Your task to perform on an android device: change your default location settings in chrome Image 0: 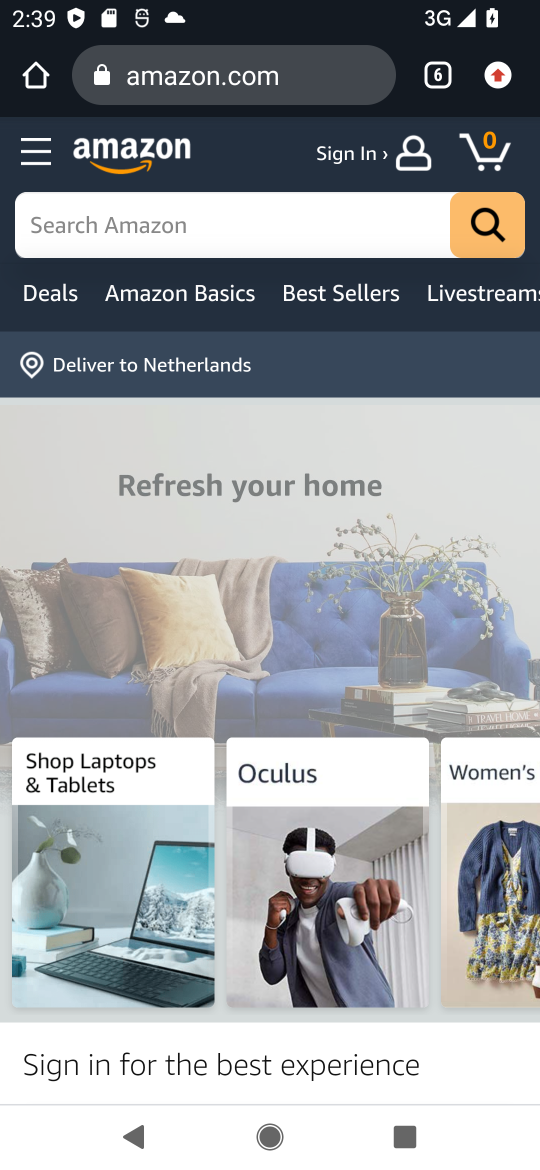
Step 0: click (503, 80)
Your task to perform on an android device: change your default location settings in chrome Image 1: 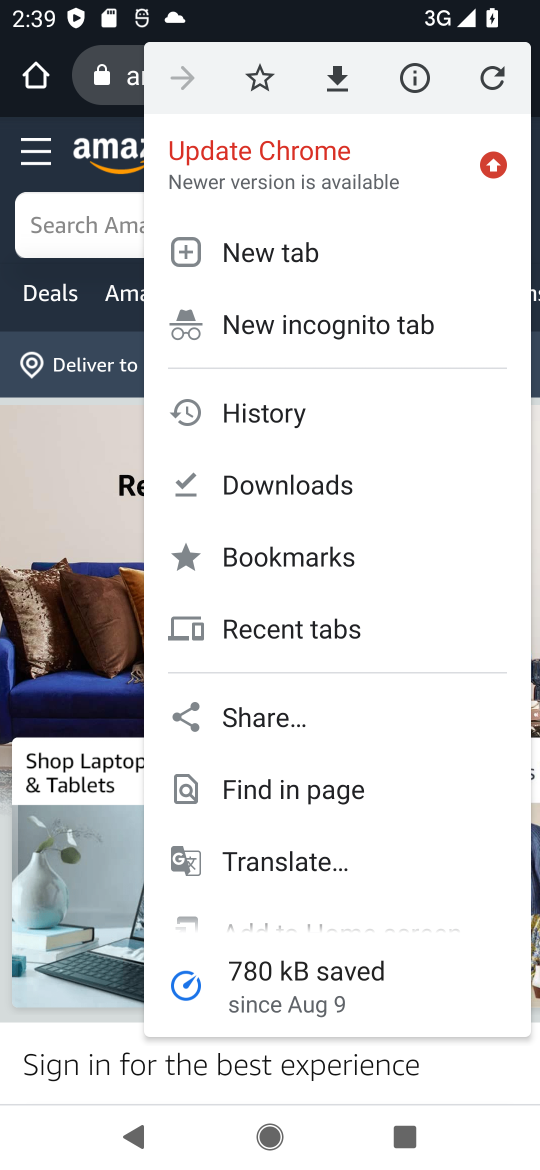
Step 1: drag from (367, 854) to (365, 351)
Your task to perform on an android device: change your default location settings in chrome Image 2: 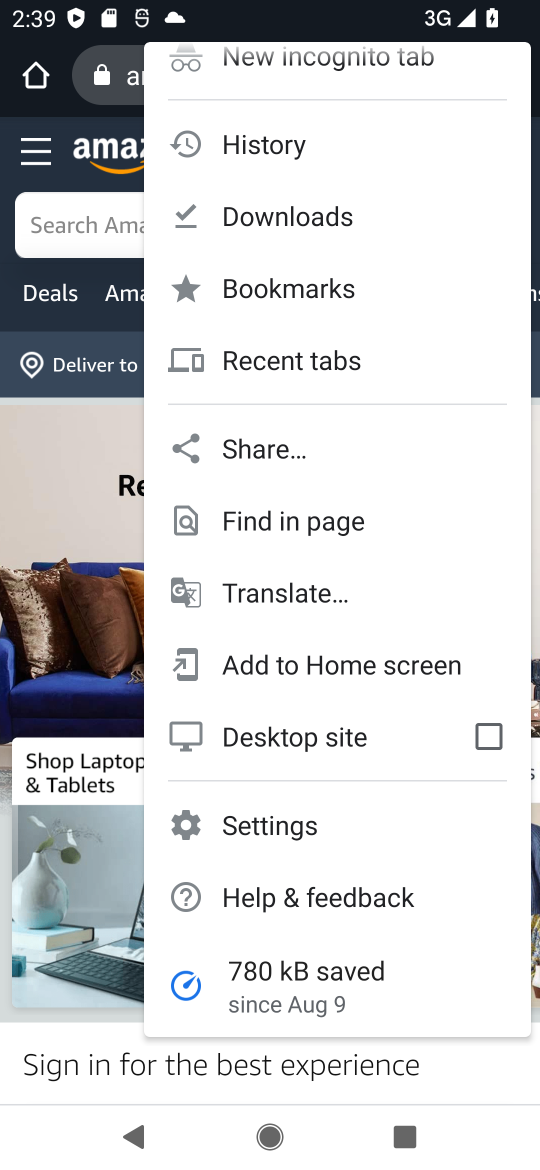
Step 2: click (270, 826)
Your task to perform on an android device: change your default location settings in chrome Image 3: 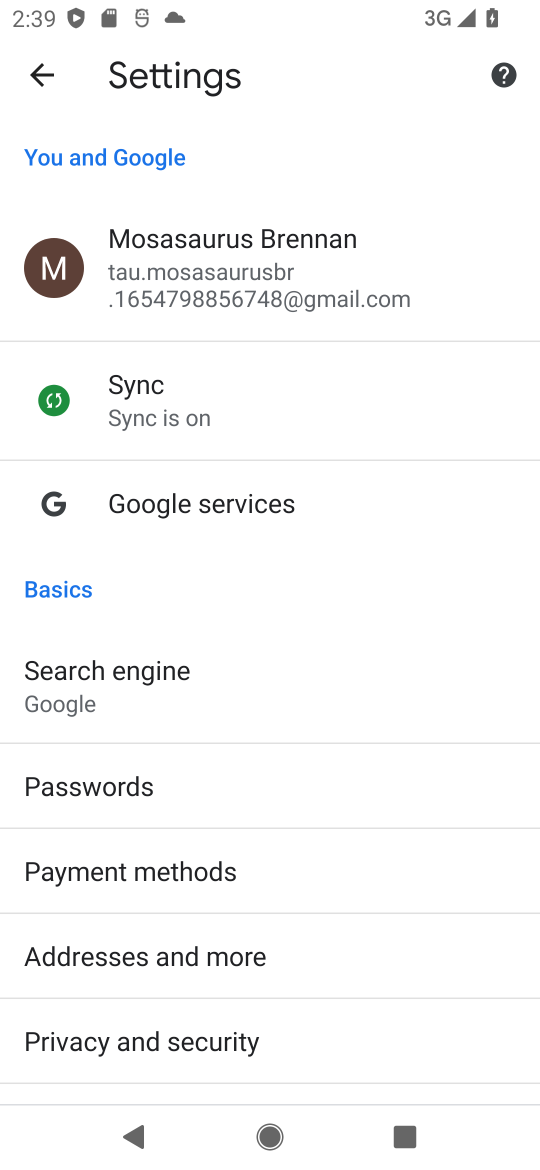
Step 3: drag from (331, 906) to (313, 170)
Your task to perform on an android device: change your default location settings in chrome Image 4: 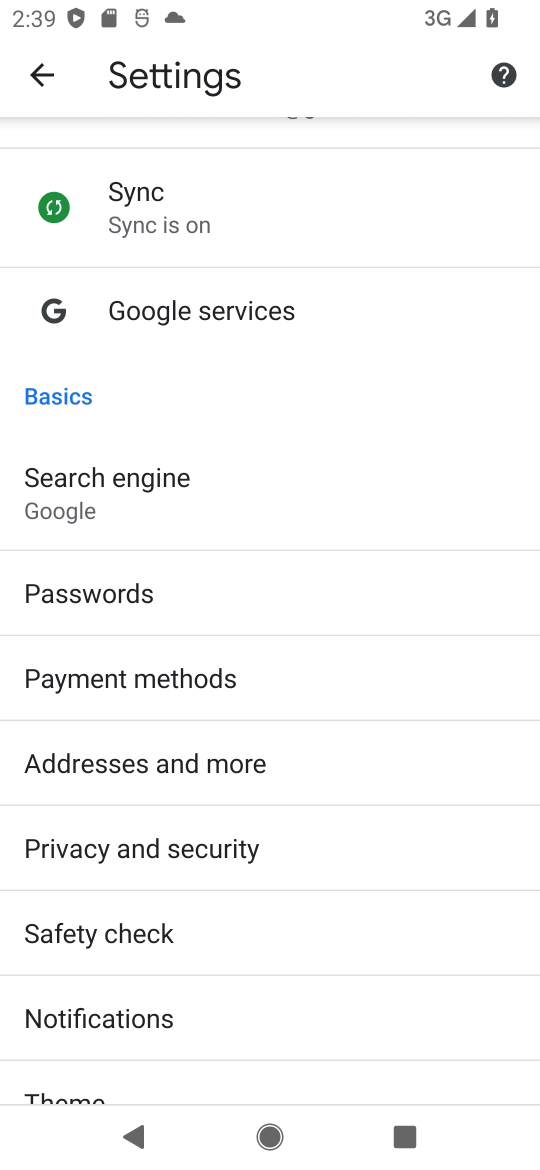
Step 4: drag from (308, 1004) to (275, 335)
Your task to perform on an android device: change your default location settings in chrome Image 5: 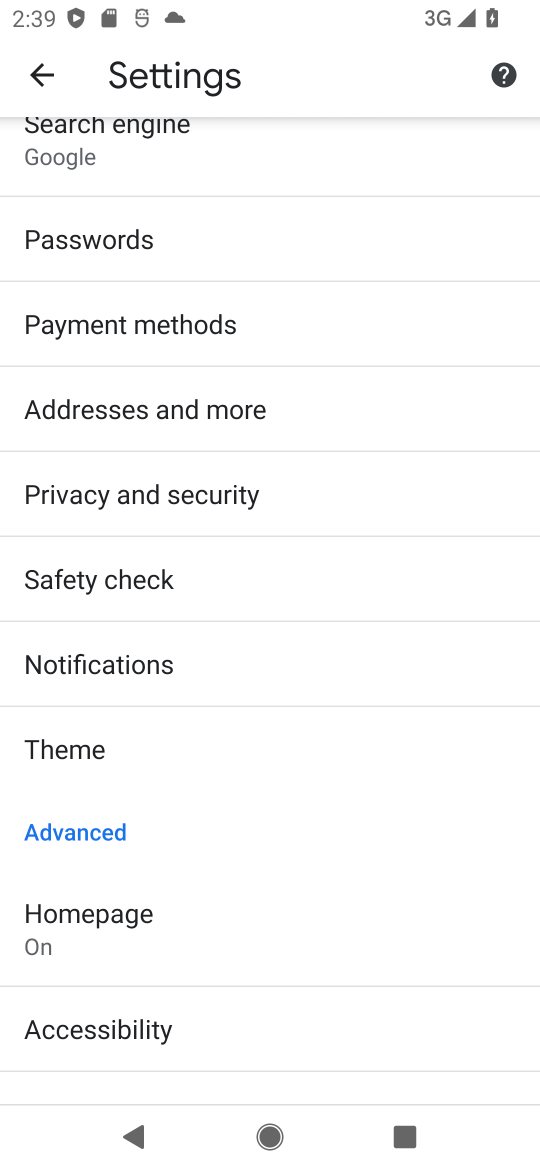
Step 5: drag from (271, 910) to (213, 298)
Your task to perform on an android device: change your default location settings in chrome Image 6: 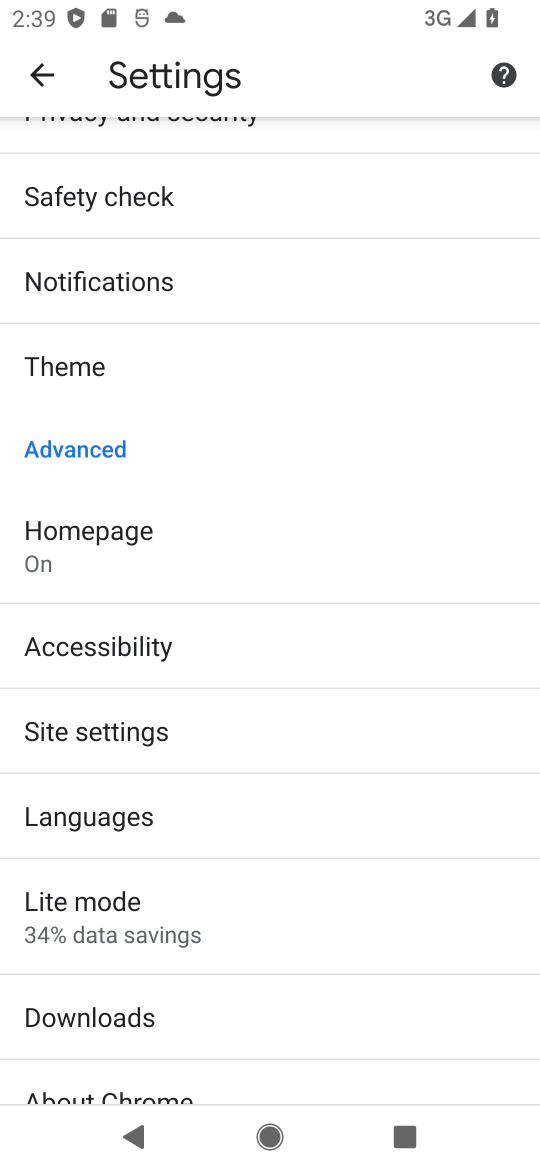
Step 6: click (82, 722)
Your task to perform on an android device: change your default location settings in chrome Image 7: 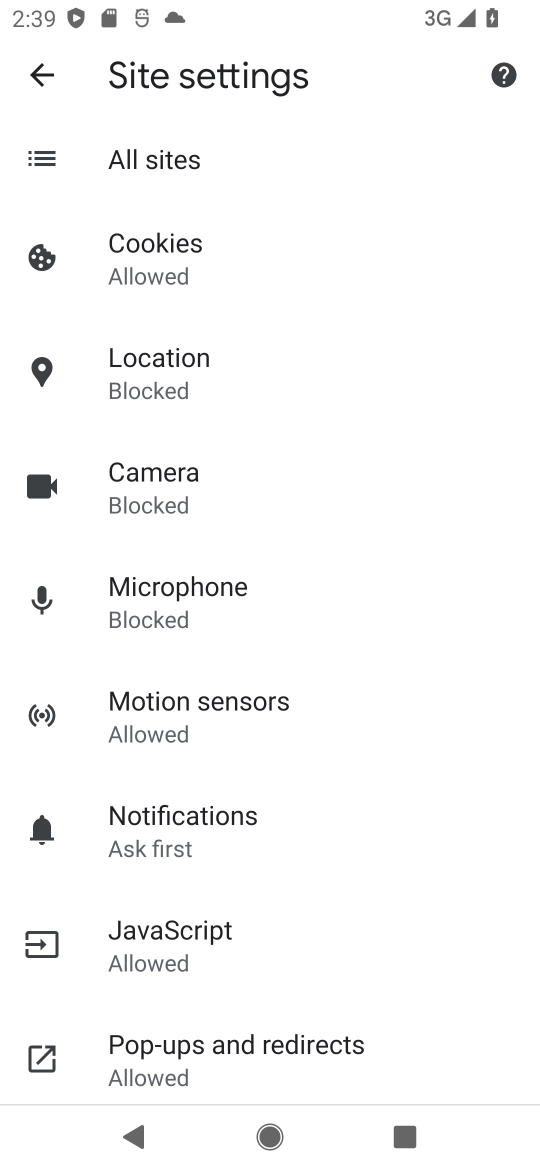
Step 7: click (152, 353)
Your task to perform on an android device: change your default location settings in chrome Image 8: 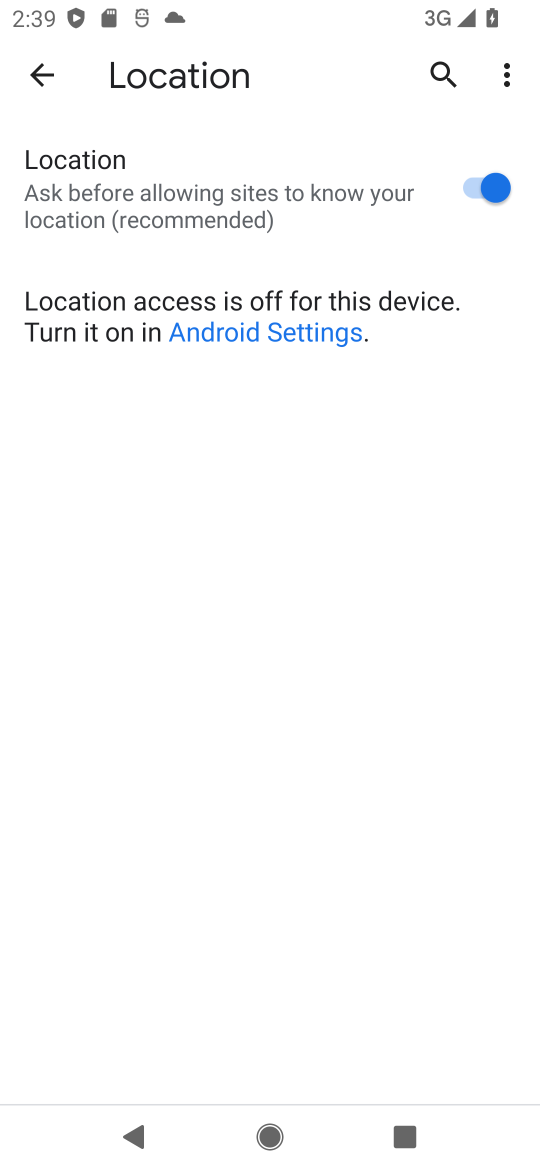
Step 8: click (482, 182)
Your task to perform on an android device: change your default location settings in chrome Image 9: 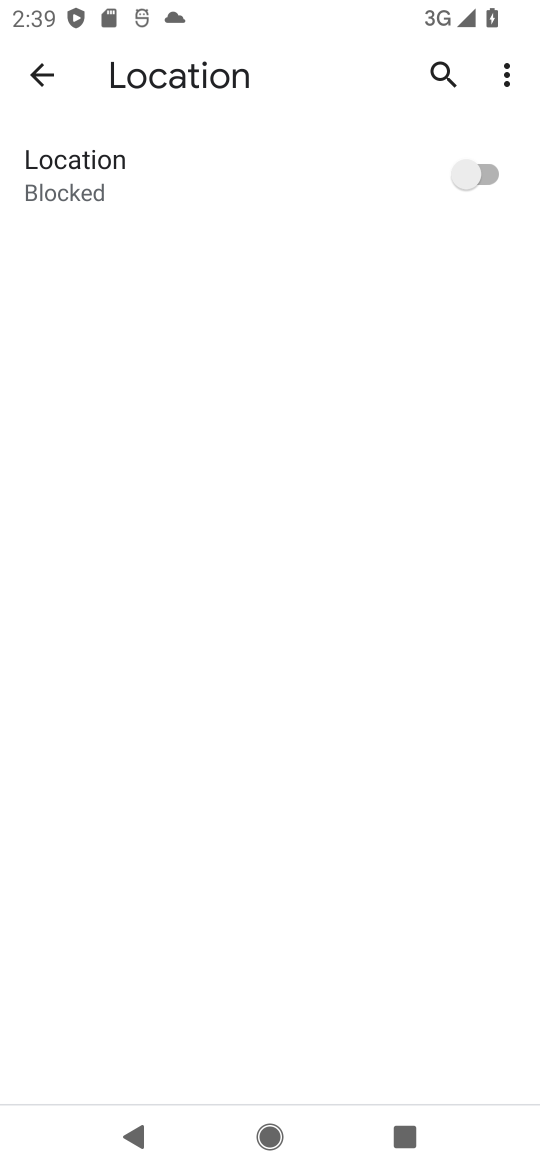
Step 9: task complete